Your task to perform on an android device: delete location history Image 0: 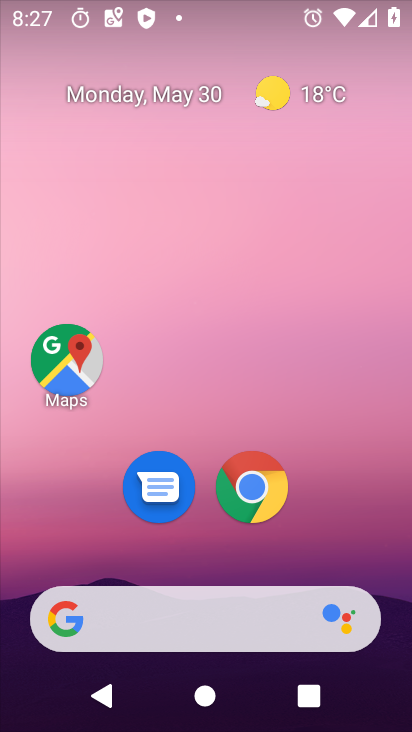
Step 0: drag from (334, 478) to (334, 65)
Your task to perform on an android device: delete location history Image 1: 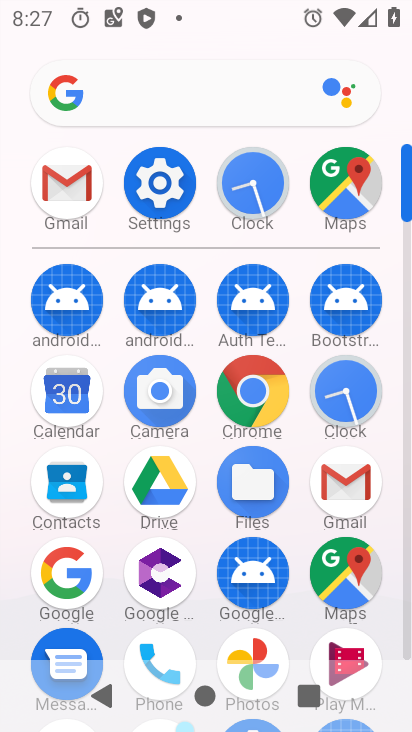
Step 1: click (339, 183)
Your task to perform on an android device: delete location history Image 2: 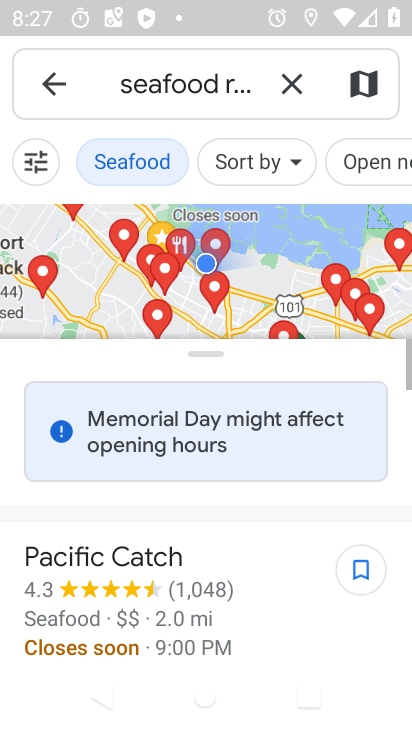
Step 2: click (303, 82)
Your task to perform on an android device: delete location history Image 3: 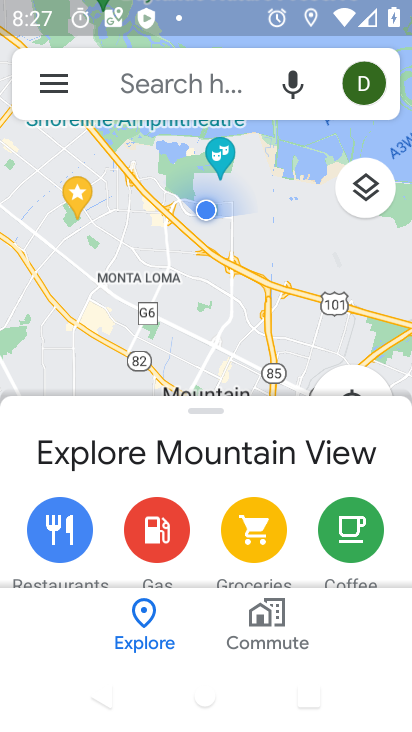
Step 3: click (62, 91)
Your task to perform on an android device: delete location history Image 4: 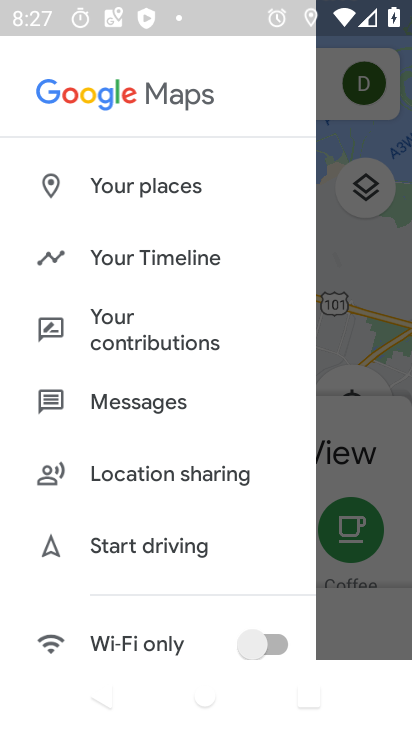
Step 4: click (143, 264)
Your task to perform on an android device: delete location history Image 5: 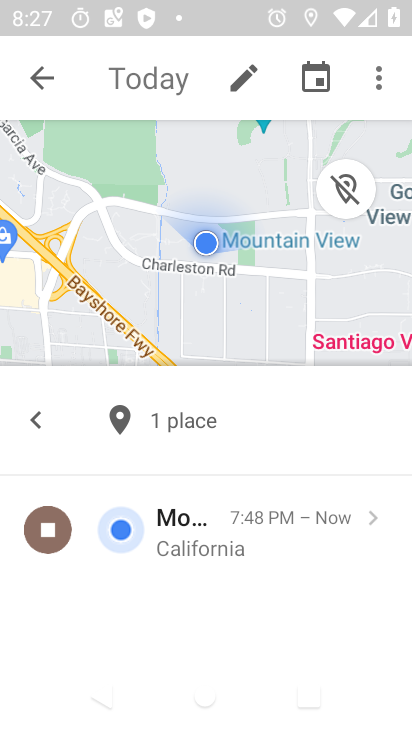
Step 5: click (378, 76)
Your task to perform on an android device: delete location history Image 6: 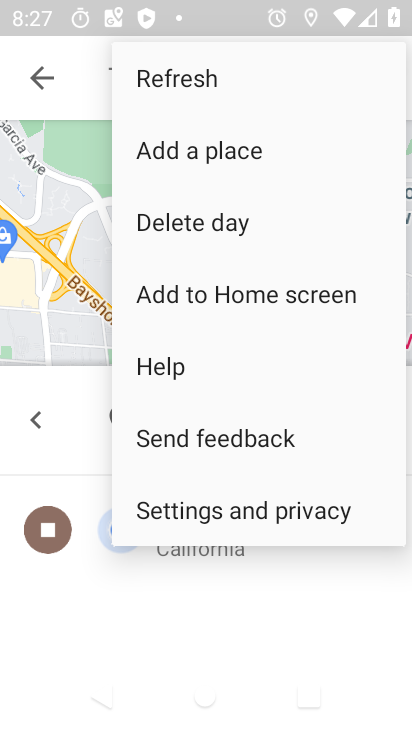
Step 6: click (246, 528)
Your task to perform on an android device: delete location history Image 7: 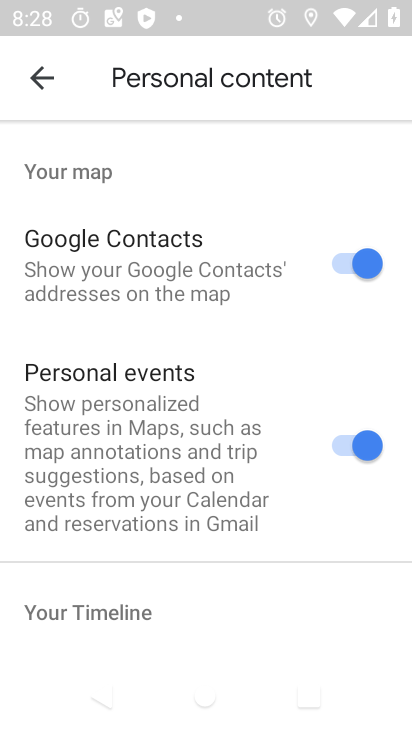
Step 7: drag from (252, 590) to (254, 98)
Your task to perform on an android device: delete location history Image 8: 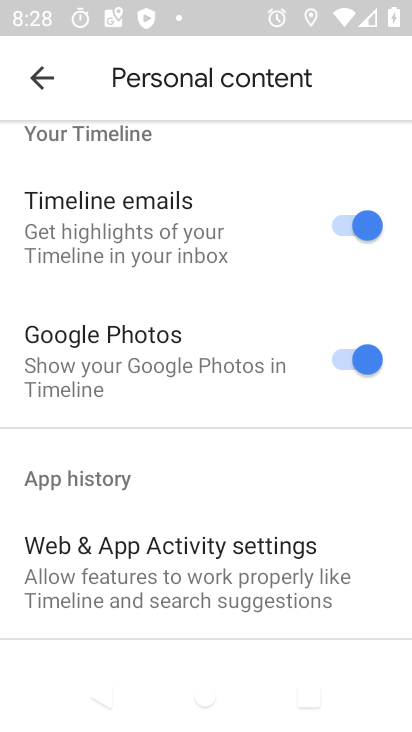
Step 8: drag from (226, 472) to (228, 128)
Your task to perform on an android device: delete location history Image 9: 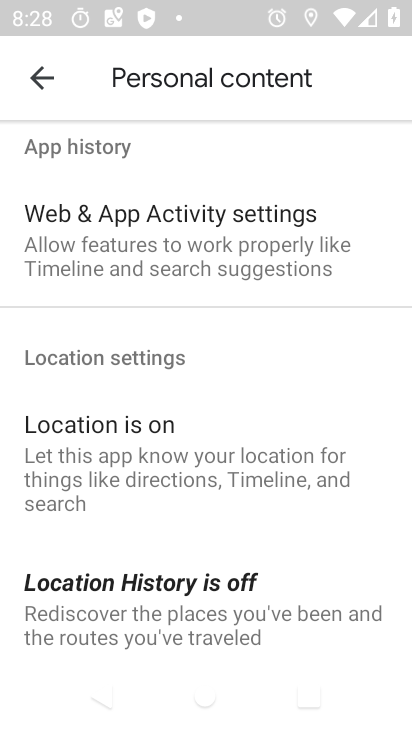
Step 9: drag from (188, 524) to (180, 205)
Your task to perform on an android device: delete location history Image 10: 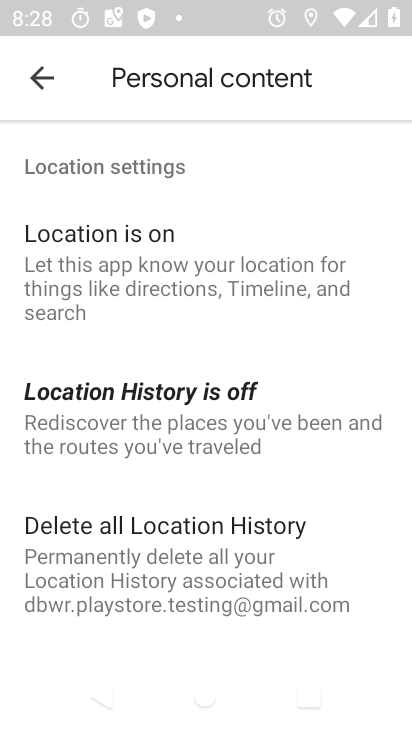
Step 10: click (172, 527)
Your task to perform on an android device: delete location history Image 11: 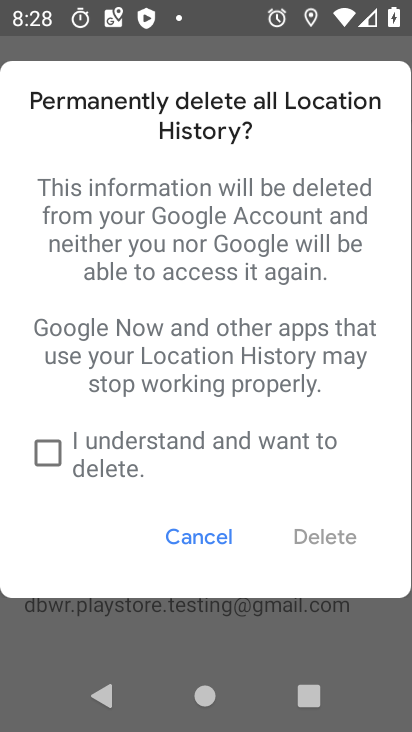
Step 11: click (58, 465)
Your task to perform on an android device: delete location history Image 12: 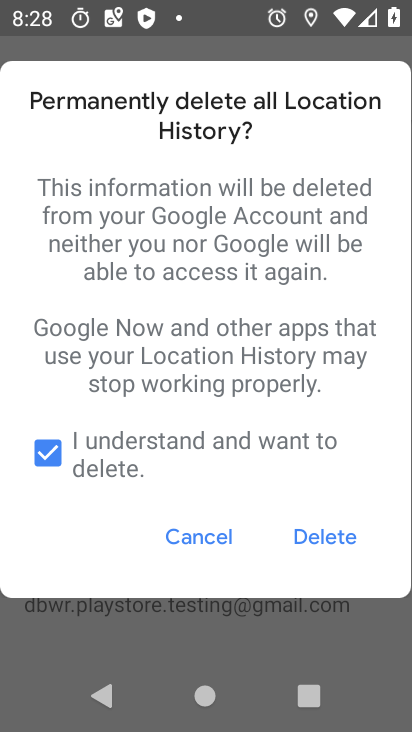
Step 12: click (322, 547)
Your task to perform on an android device: delete location history Image 13: 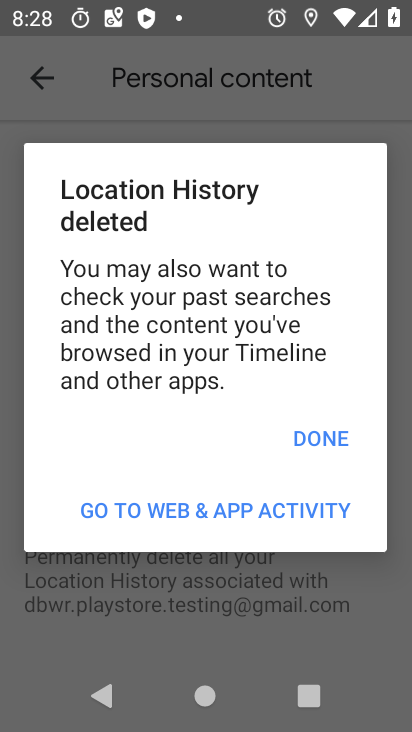
Step 13: click (332, 432)
Your task to perform on an android device: delete location history Image 14: 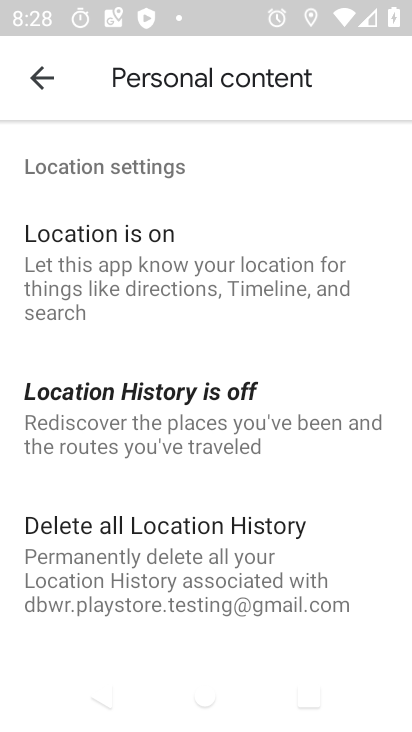
Step 14: task complete